Your task to perform on an android device: move a message to another label in the gmail app Image 0: 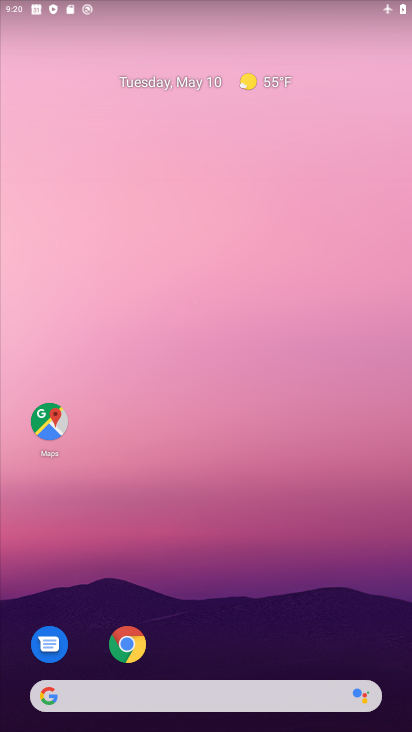
Step 0: drag from (294, 601) to (340, 244)
Your task to perform on an android device: move a message to another label in the gmail app Image 1: 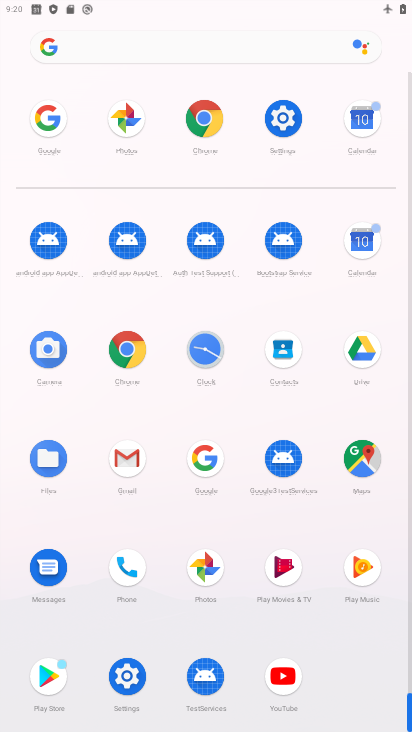
Step 1: click (112, 464)
Your task to perform on an android device: move a message to another label in the gmail app Image 2: 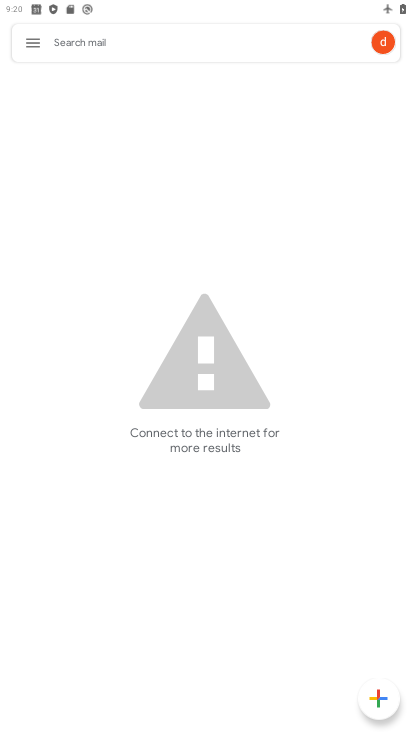
Step 2: click (38, 55)
Your task to perform on an android device: move a message to another label in the gmail app Image 3: 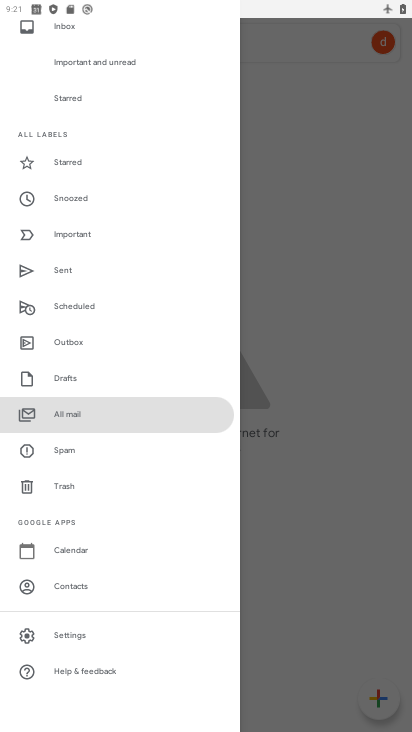
Step 3: click (97, 413)
Your task to perform on an android device: move a message to another label in the gmail app Image 4: 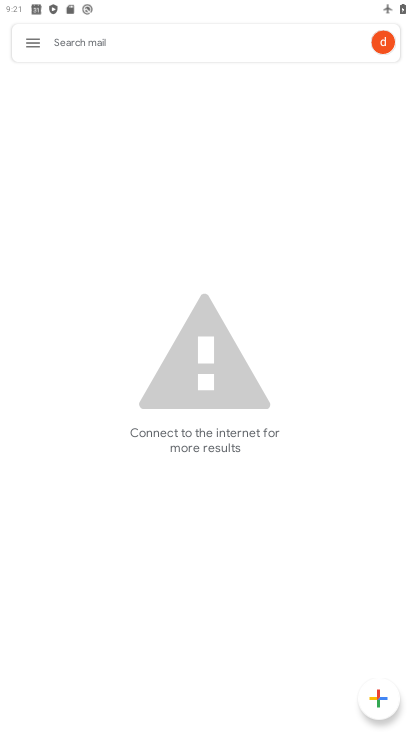
Step 4: task complete